Your task to perform on an android device: change the clock display to analog Image 0: 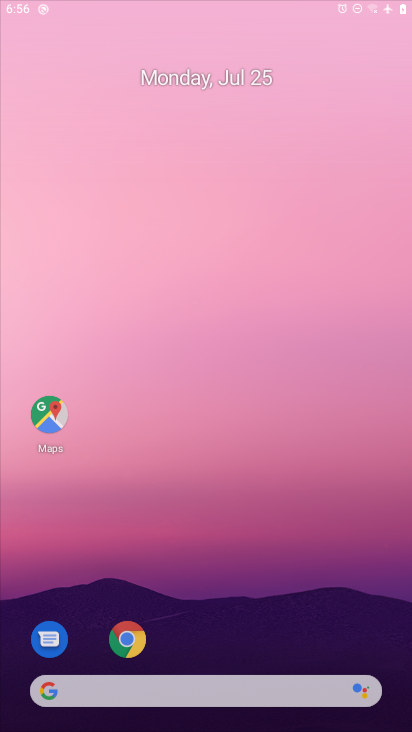
Step 0: press home button
Your task to perform on an android device: change the clock display to analog Image 1: 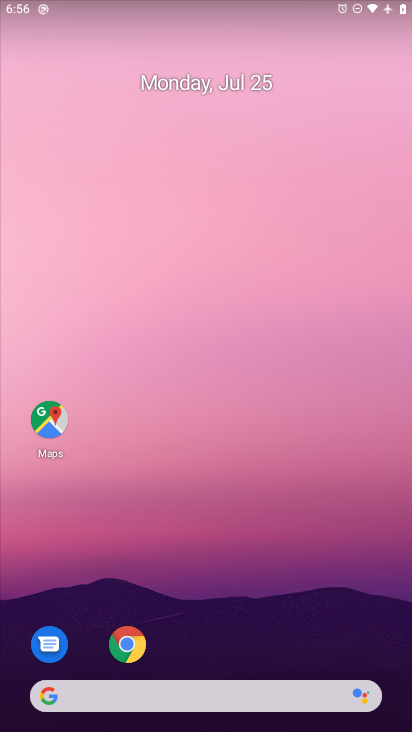
Step 1: drag from (243, 235) to (269, 82)
Your task to perform on an android device: change the clock display to analog Image 2: 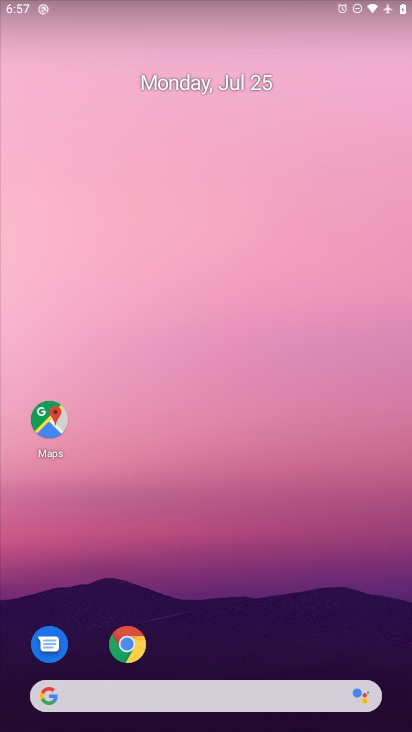
Step 2: drag from (248, 629) to (315, 175)
Your task to perform on an android device: change the clock display to analog Image 3: 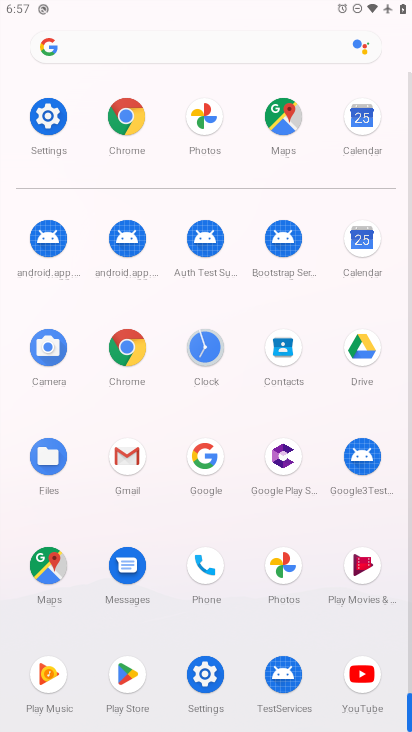
Step 3: click (193, 343)
Your task to perform on an android device: change the clock display to analog Image 4: 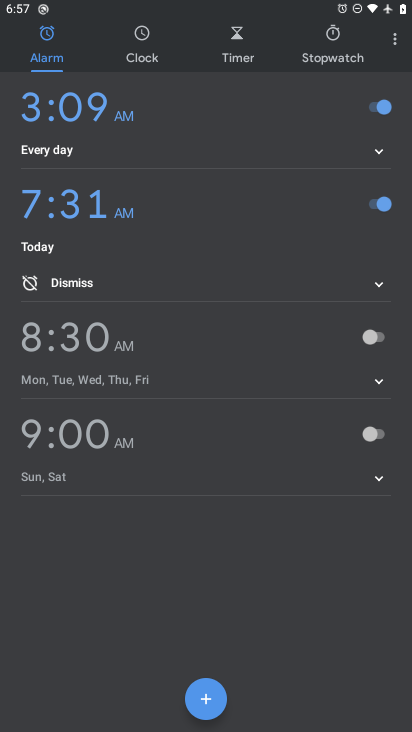
Step 4: click (401, 39)
Your task to perform on an android device: change the clock display to analog Image 5: 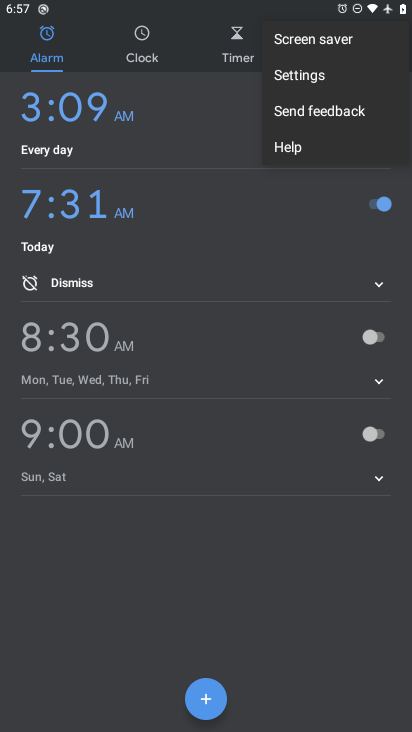
Step 5: click (301, 75)
Your task to perform on an android device: change the clock display to analog Image 6: 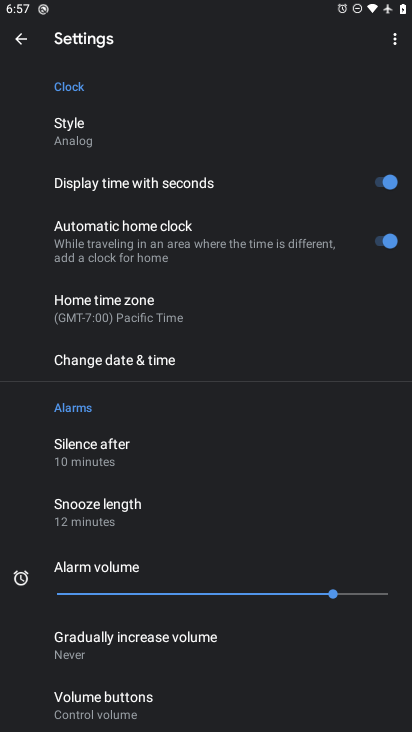
Step 6: click (79, 137)
Your task to perform on an android device: change the clock display to analog Image 7: 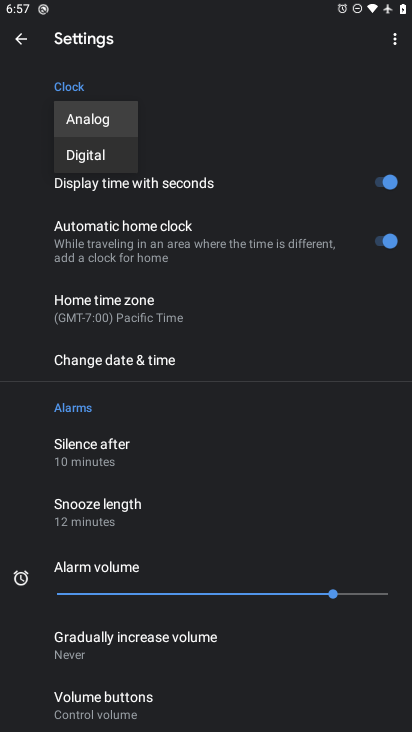
Step 7: task complete